Your task to perform on an android device: move a message to another label in the gmail app Image 0: 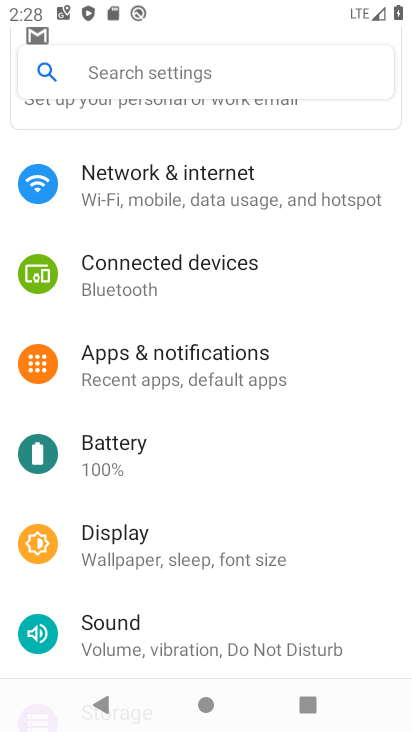
Step 0: press home button
Your task to perform on an android device: move a message to another label in the gmail app Image 1: 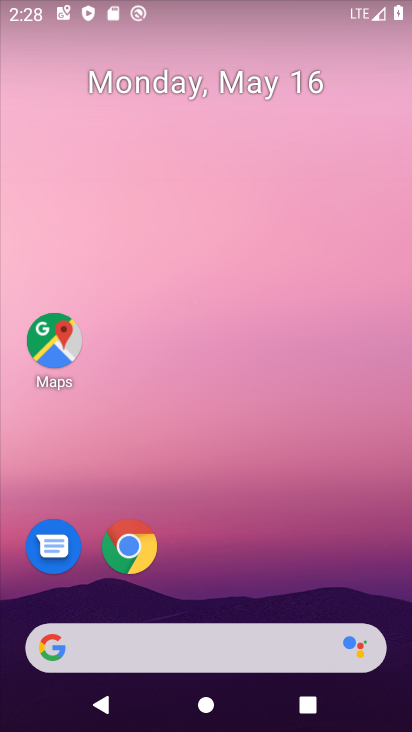
Step 1: drag from (241, 651) to (275, 219)
Your task to perform on an android device: move a message to another label in the gmail app Image 2: 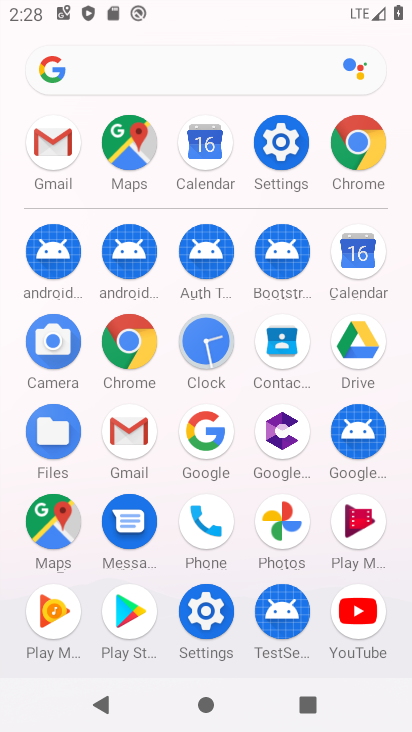
Step 2: click (144, 428)
Your task to perform on an android device: move a message to another label in the gmail app Image 3: 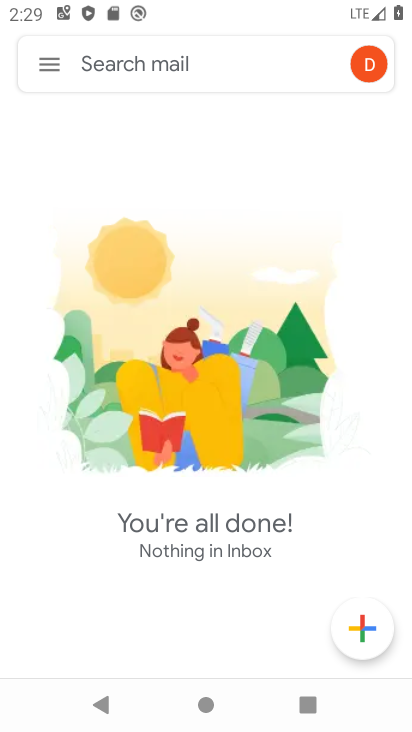
Step 3: click (43, 53)
Your task to perform on an android device: move a message to another label in the gmail app Image 4: 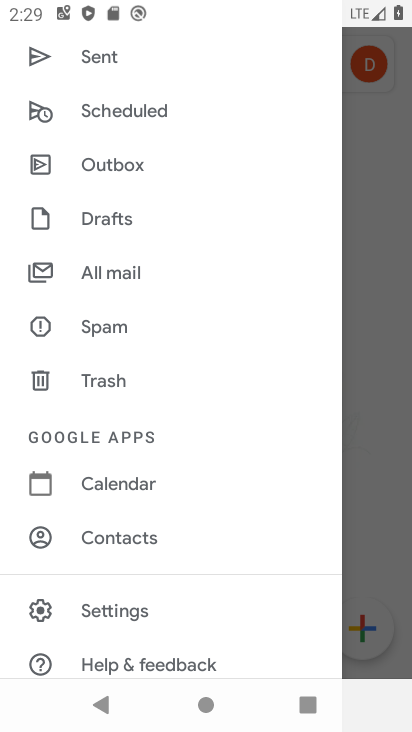
Step 4: click (129, 624)
Your task to perform on an android device: move a message to another label in the gmail app Image 5: 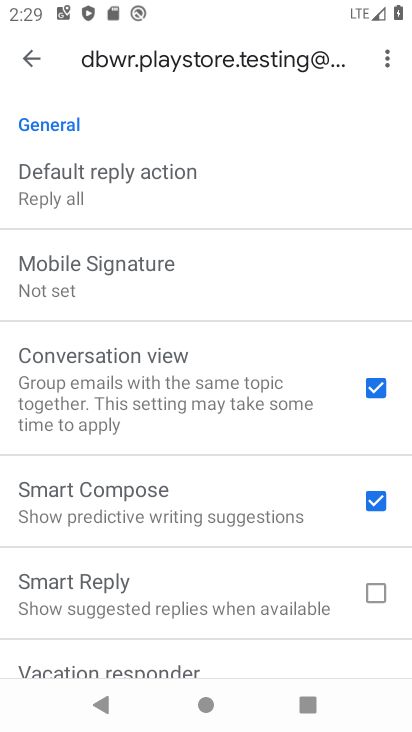
Step 5: drag from (128, 240) to (165, 520)
Your task to perform on an android device: move a message to another label in the gmail app Image 6: 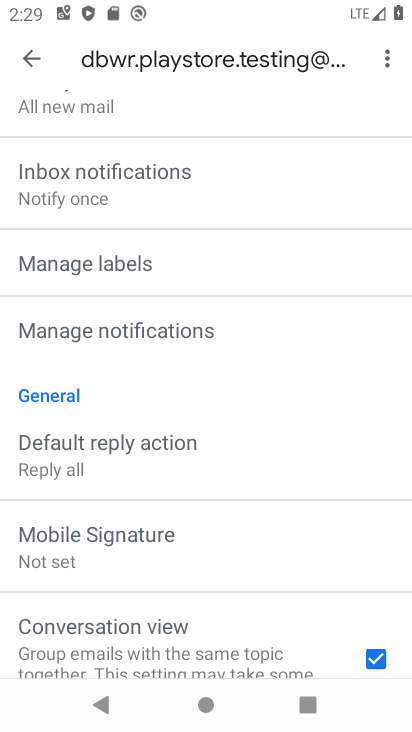
Step 6: drag from (126, 245) to (107, 441)
Your task to perform on an android device: move a message to another label in the gmail app Image 7: 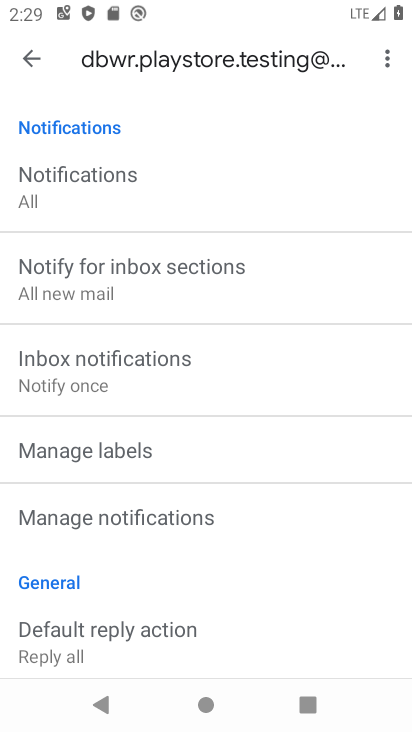
Step 7: drag from (120, 197) to (123, 250)
Your task to perform on an android device: move a message to another label in the gmail app Image 8: 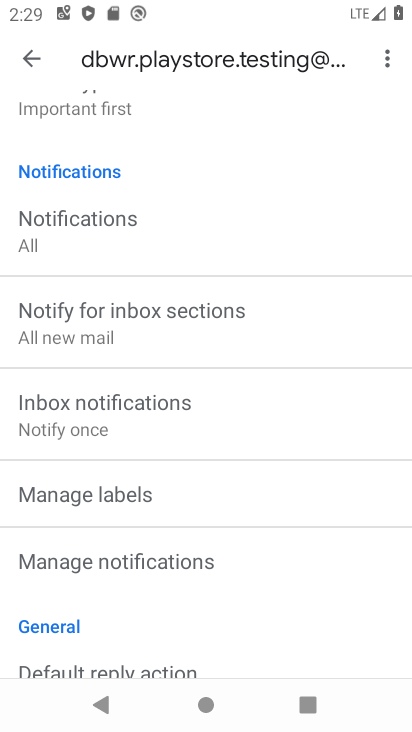
Step 8: click (114, 487)
Your task to perform on an android device: move a message to another label in the gmail app Image 9: 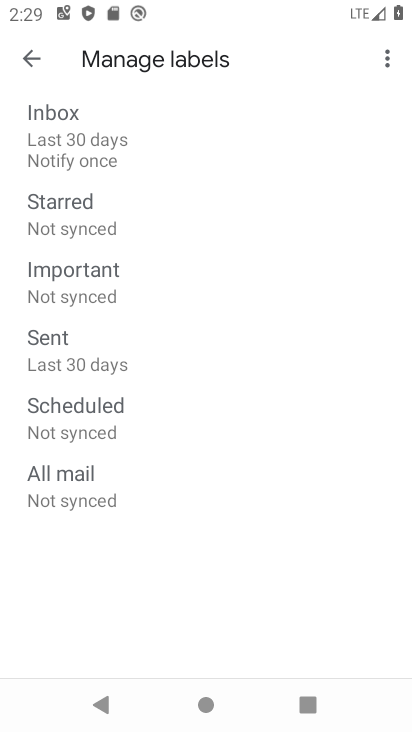
Step 9: click (146, 231)
Your task to perform on an android device: move a message to another label in the gmail app Image 10: 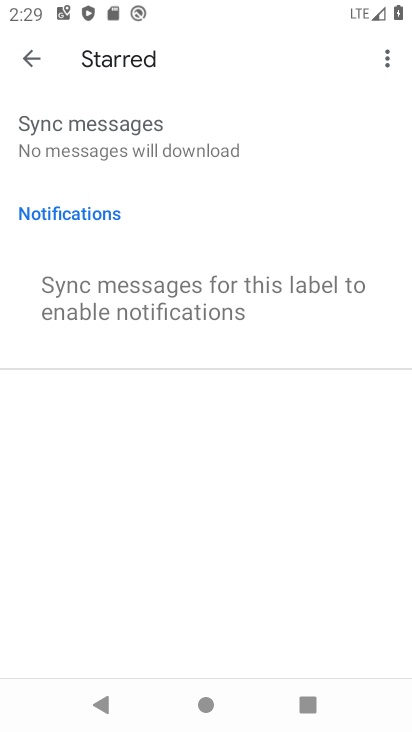
Step 10: task complete